Your task to perform on an android device: Go to CNN.com Image 0: 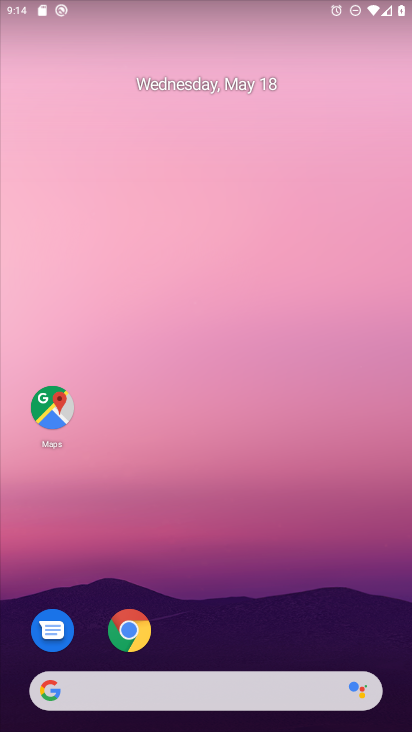
Step 0: click (138, 628)
Your task to perform on an android device: Go to CNN.com Image 1: 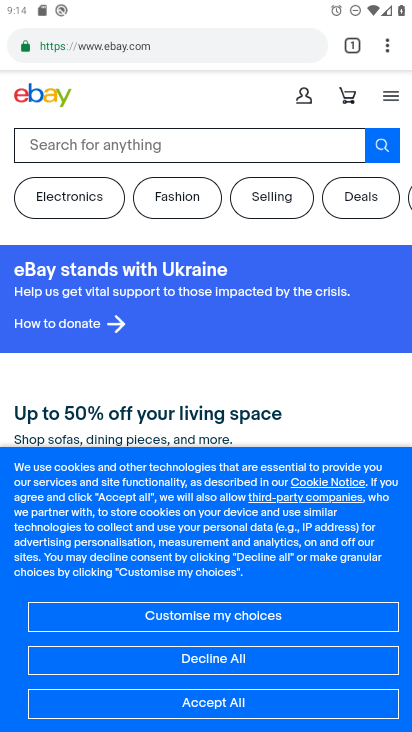
Step 1: click (355, 38)
Your task to perform on an android device: Go to CNN.com Image 2: 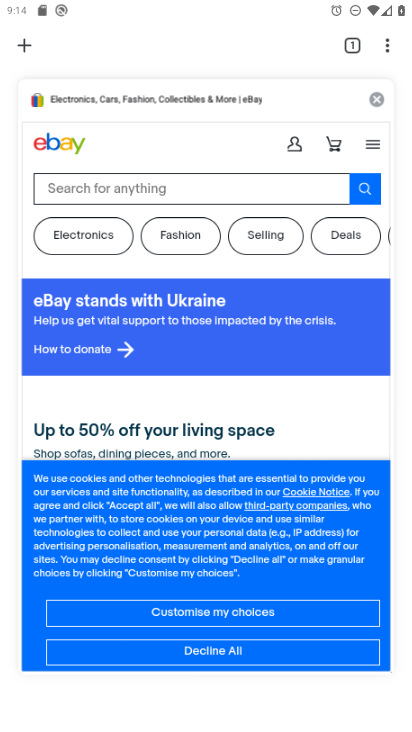
Step 2: click (35, 45)
Your task to perform on an android device: Go to CNN.com Image 3: 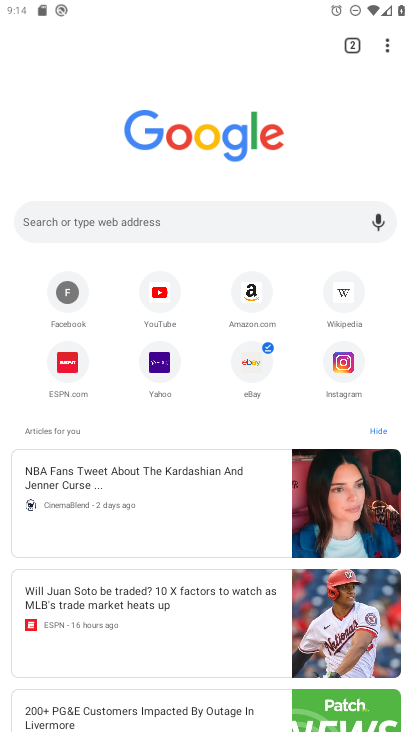
Step 3: click (217, 213)
Your task to perform on an android device: Go to CNN.com Image 4: 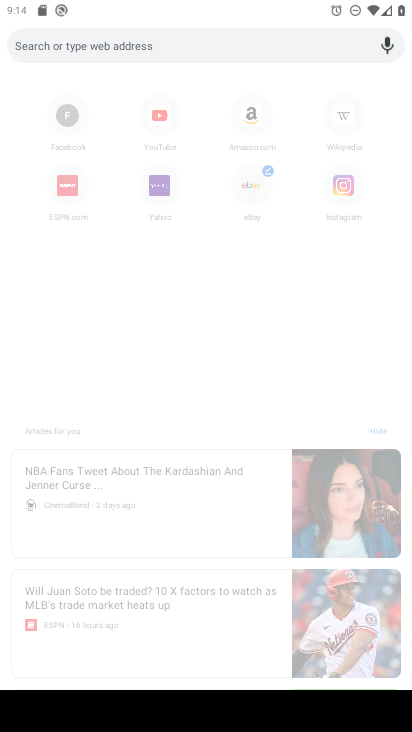
Step 4: type "cnn"
Your task to perform on an android device: Go to CNN.com Image 5: 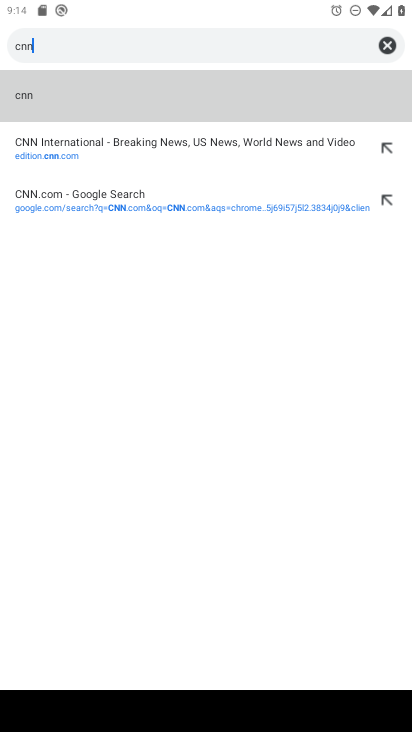
Step 5: click (138, 150)
Your task to perform on an android device: Go to CNN.com Image 6: 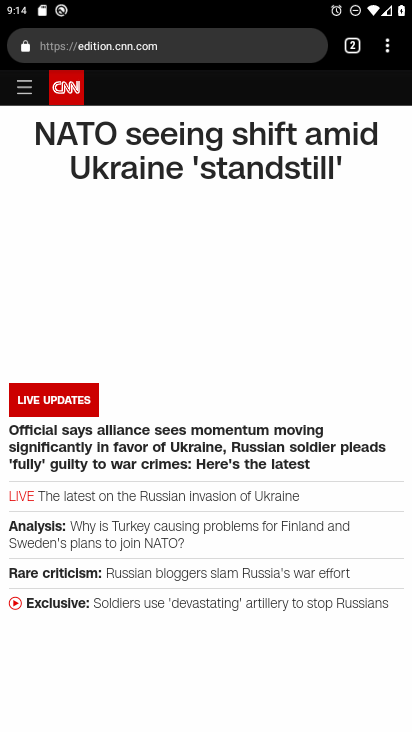
Step 6: task complete